Your task to perform on an android device: find snoozed emails in the gmail app Image 0: 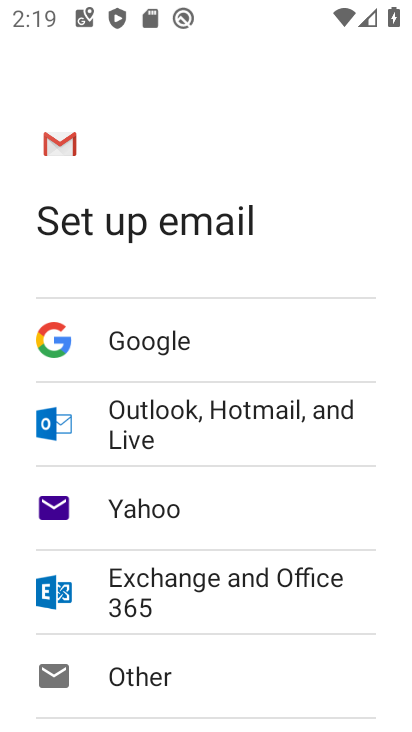
Step 0: press back button
Your task to perform on an android device: find snoozed emails in the gmail app Image 1: 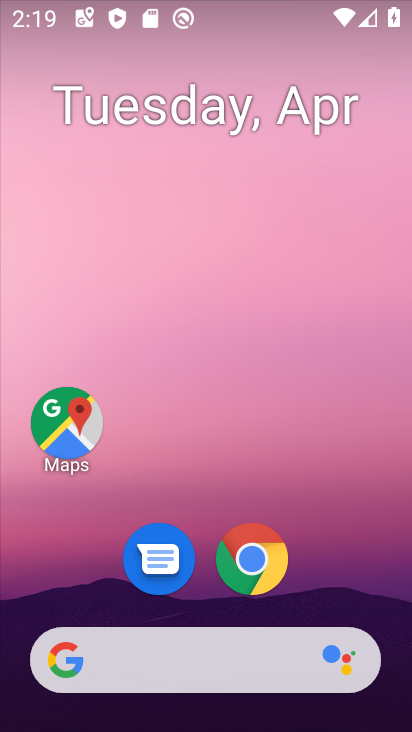
Step 1: drag from (184, 600) to (314, 35)
Your task to perform on an android device: find snoozed emails in the gmail app Image 2: 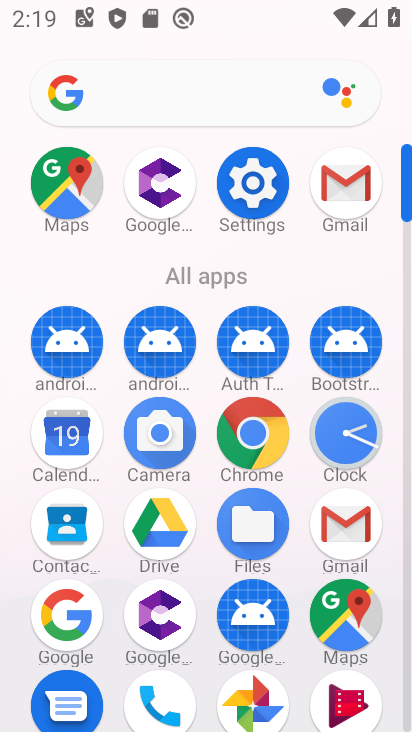
Step 2: click (324, 189)
Your task to perform on an android device: find snoozed emails in the gmail app Image 3: 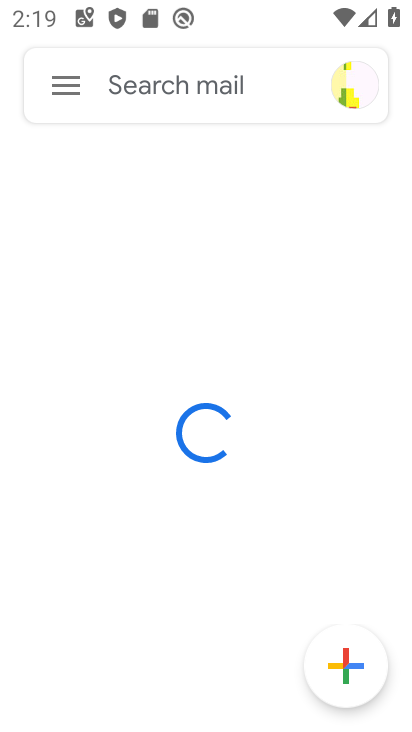
Step 3: click (33, 59)
Your task to perform on an android device: find snoozed emails in the gmail app Image 4: 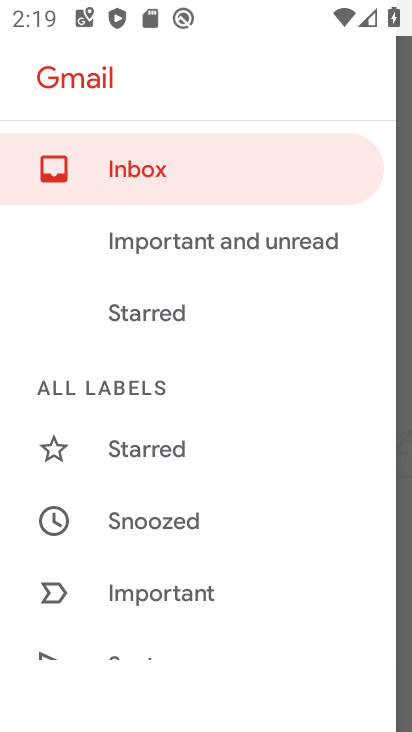
Step 4: click (194, 534)
Your task to perform on an android device: find snoozed emails in the gmail app Image 5: 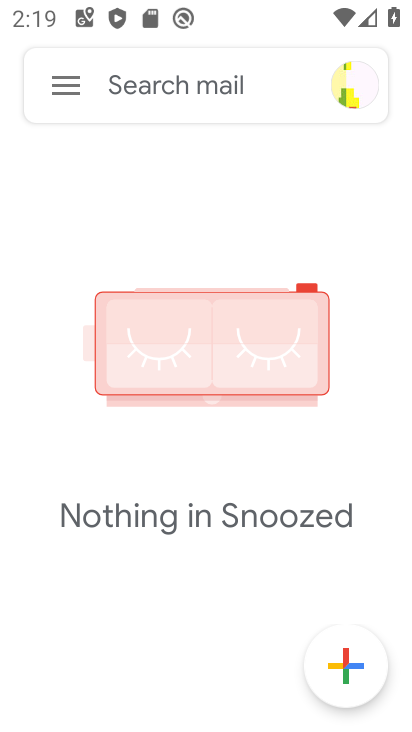
Step 5: task complete